Your task to perform on an android device: What is the recent news? Image 0: 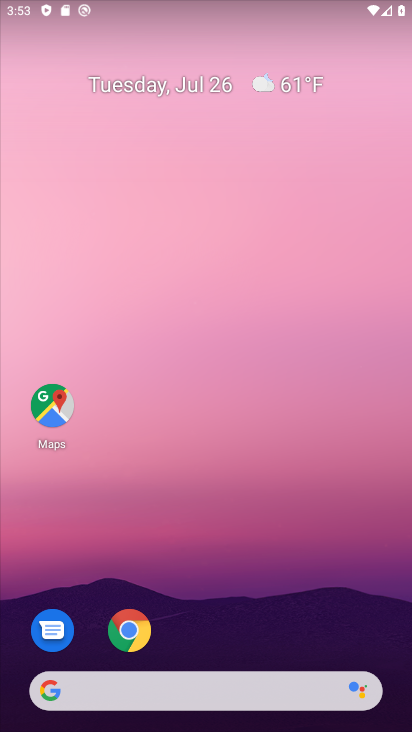
Step 0: drag from (281, 670) to (196, 209)
Your task to perform on an android device: What is the recent news? Image 1: 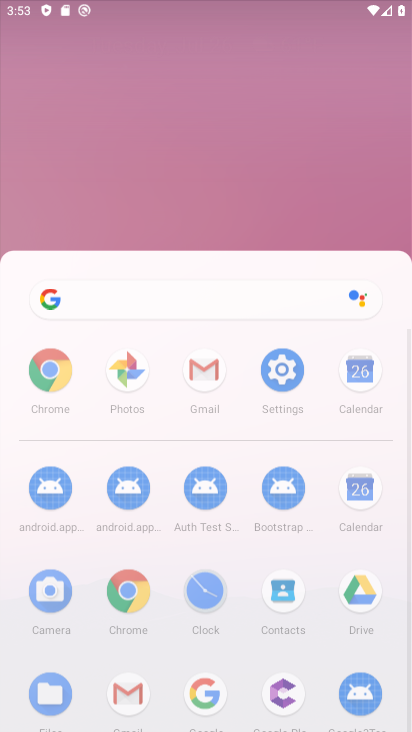
Step 1: drag from (291, 580) to (248, 81)
Your task to perform on an android device: What is the recent news? Image 2: 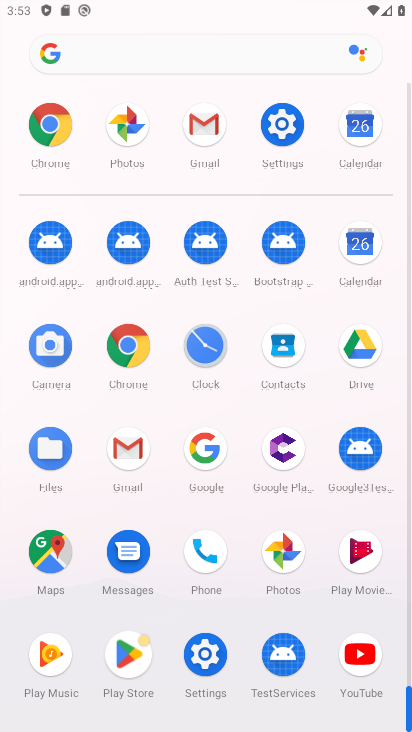
Step 2: drag from (229, 372) to (182, 81)
Your task to perform on an android device: What is the recent news? Image 3: 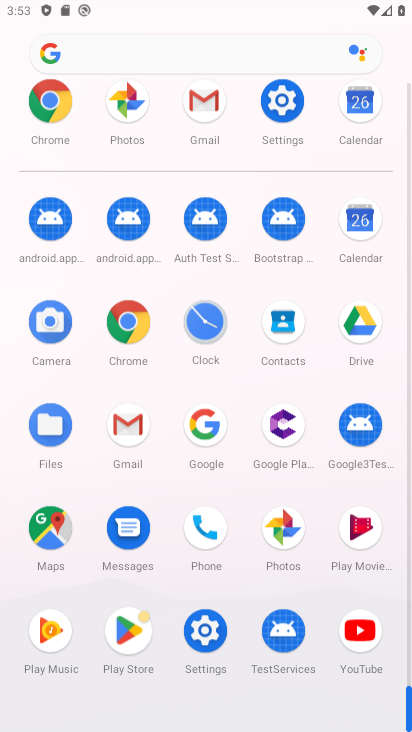
Step 3: drag from (206, 497) to (182, 169)
Your task to perform on an android device: What is the recent news? Image 4: 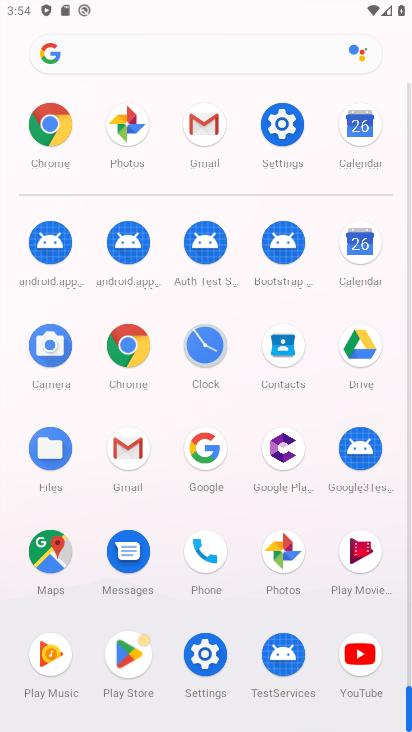
Step 4: click (122, 353)
Your task to perform on an android device: What is the recent news? Image 5: 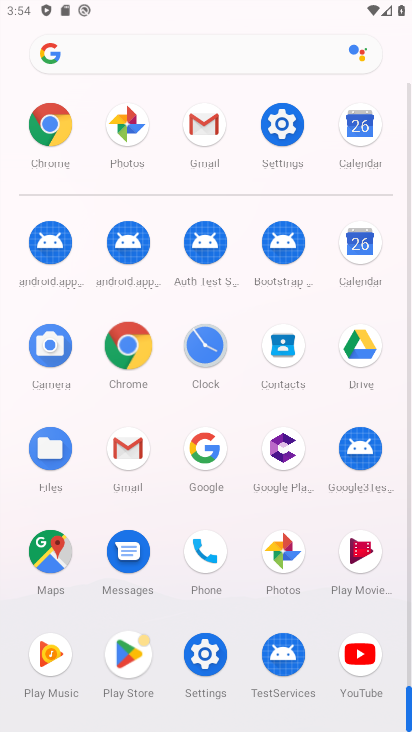
Step 5: click (133, 347)
Your task to perform on an android device: What is the recent news? Image 6: 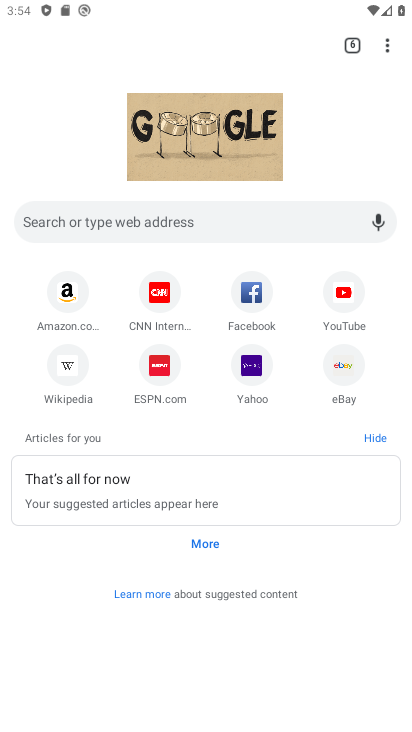
Step 6: click (377, 43)
Your task to perform on an android device: What is the recent news? Image 7: 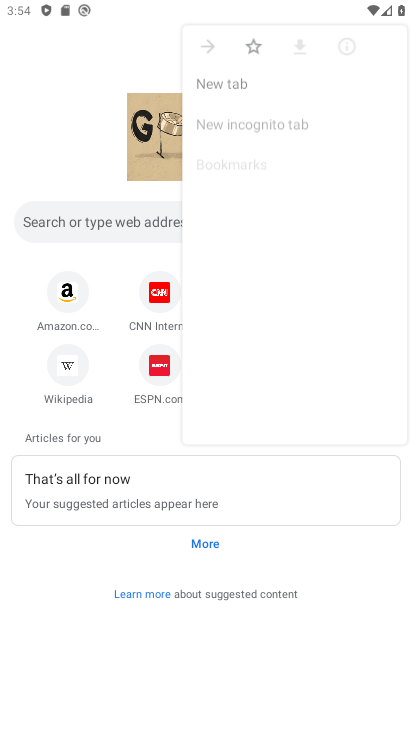
Step 7: click (384, 45)
Your task to perform on an android device: What is the recent news? Image 8: 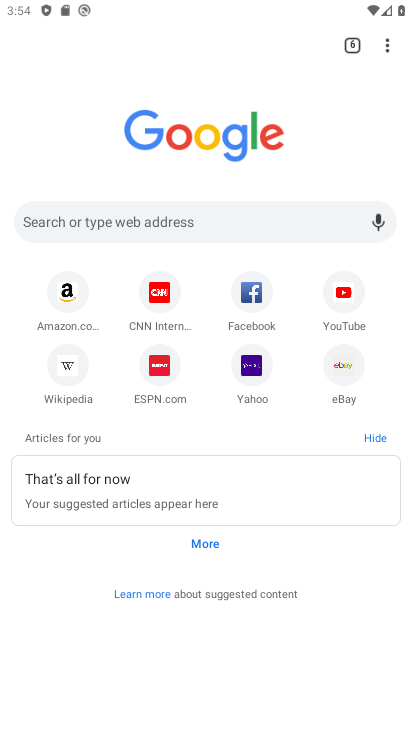
Step 8: click (385, 46)
Your task to perform on an android device: What is the recent news? Image 9: 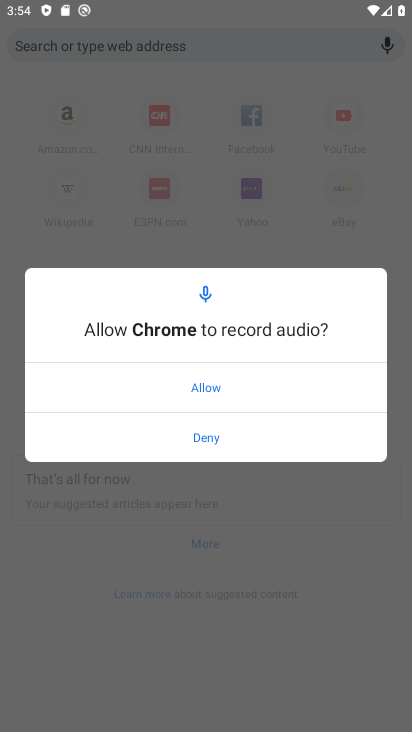
Step 9: click (31, 52)
Your task to perform on an android device: What is the recent news? Image 10: 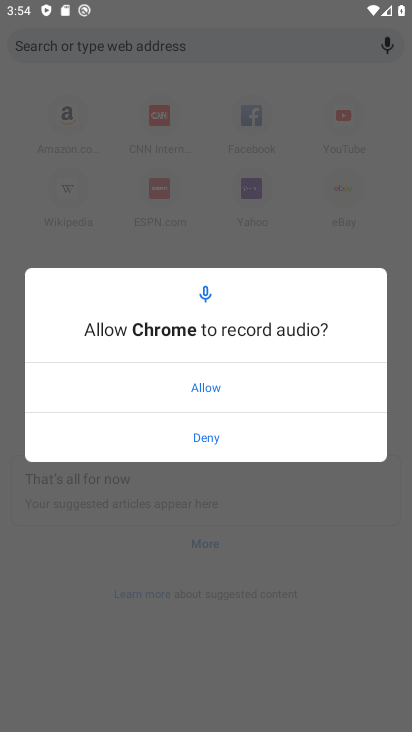
Step 10: click (31, 52)
Your task to perform on an android device: What is the recent news? Image 11: 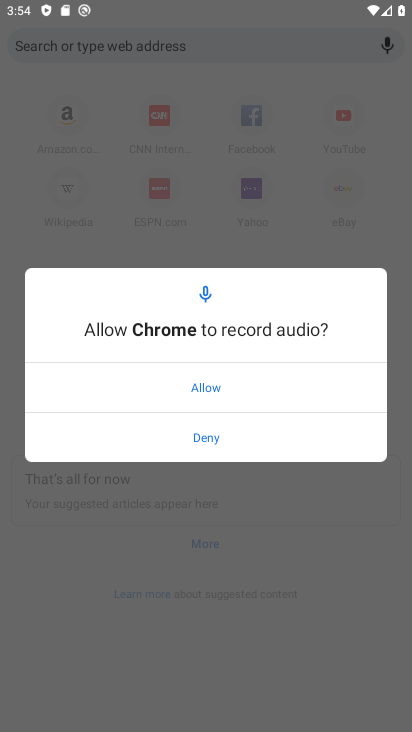
Step 11: click (31, 52)
Your task to perform on an android device: What is the recent news? Image 12: 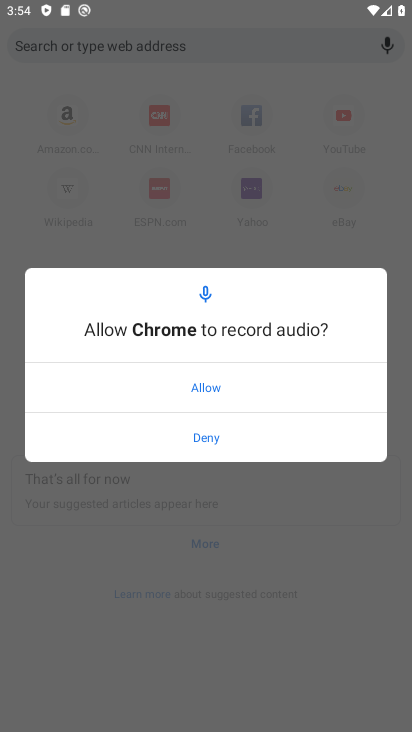
Step 12: click (218, 394)
Your task to perform on an android device: What is the recent news? Image 13: 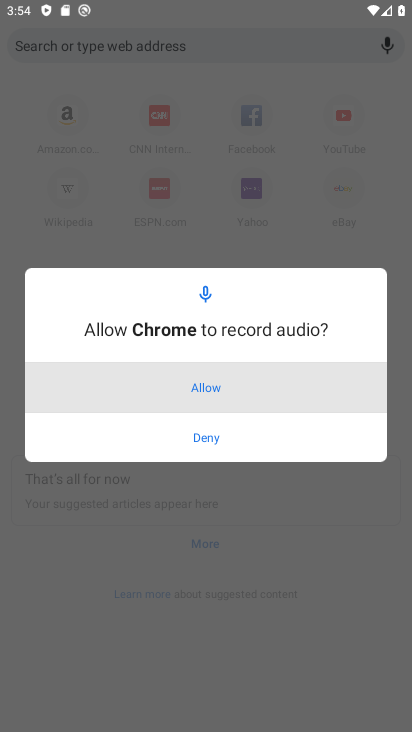
Step 13: click (218, 392)
Your task to perform on an android device: What is the recent news? Image 14: 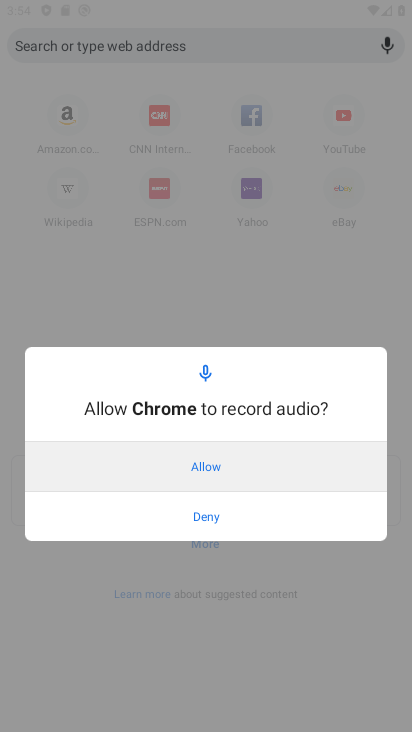
Step 14: click (218, 392)
Your task to perform on an android device: What is the recent news? Image 15: 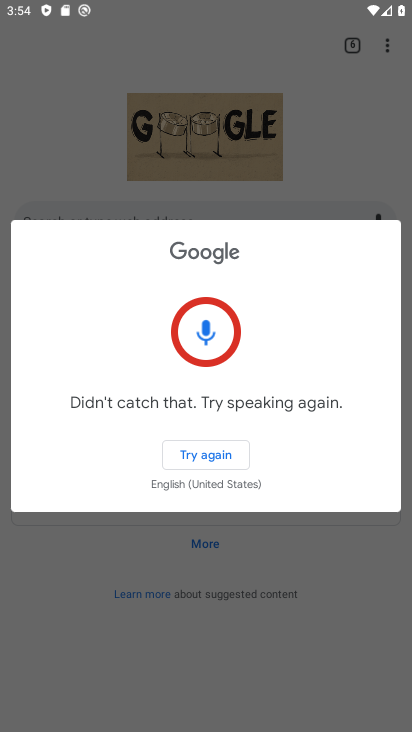
Step 15: click (82, 141)
Your task to perform on an android device: What is the recent news? Image 16: 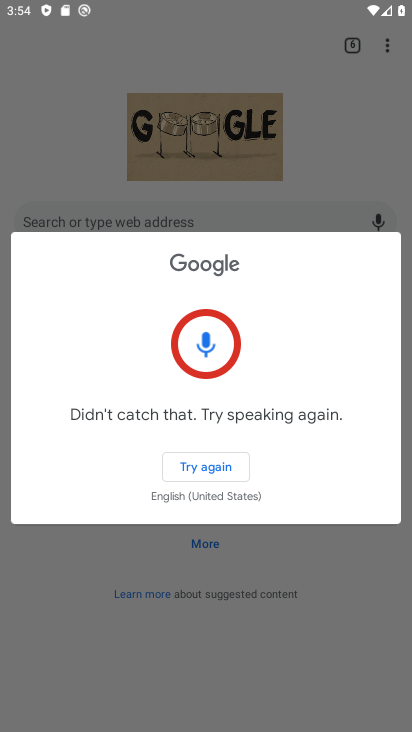
Step 16: click (81, 139)
Your task to perform on an android device: What is the recent news? Image 17: 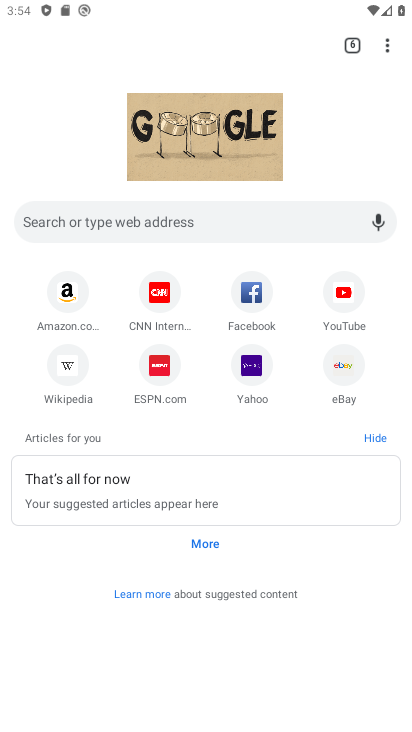
Step 17: click (81, 139)
Your task to perform on an android device: What is the recent news? Image 18: 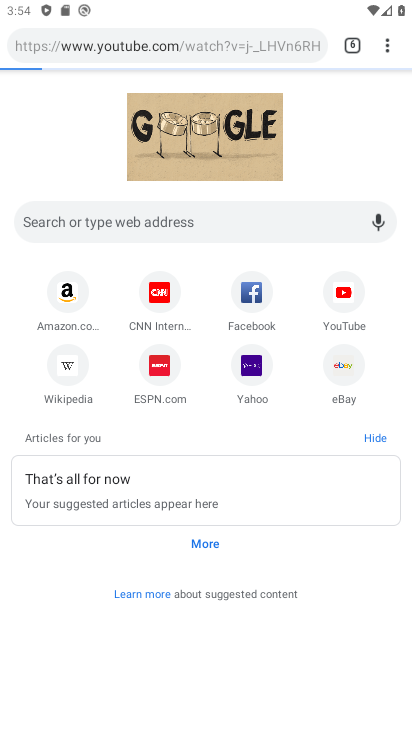
Step 18: click (81, 139)
Your task to perform on an android device: What is the recent news? Image 19: 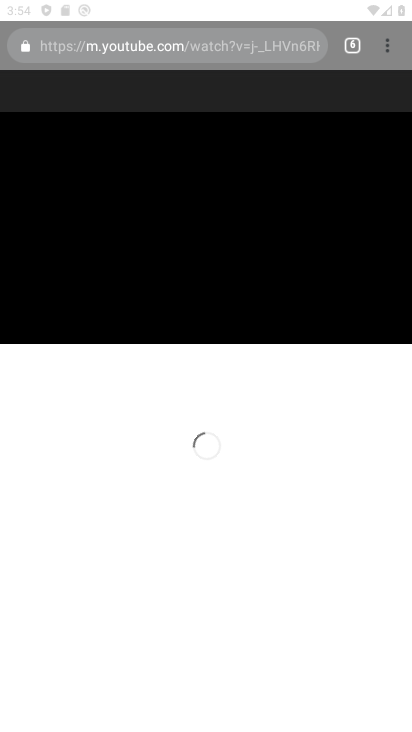
Step 19: task complete